Your task to perform on an android device: delete browsing data in the chrome app Image 0: 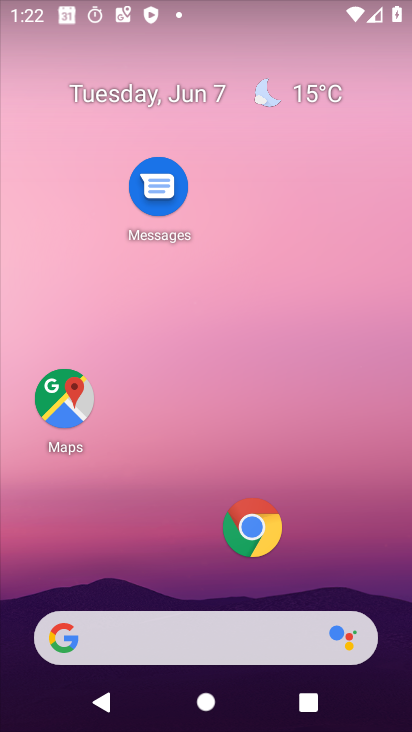
Step 0: click (259, 530)
Your task to perform on an android device: delete browsing data in the chrome app Image 1: 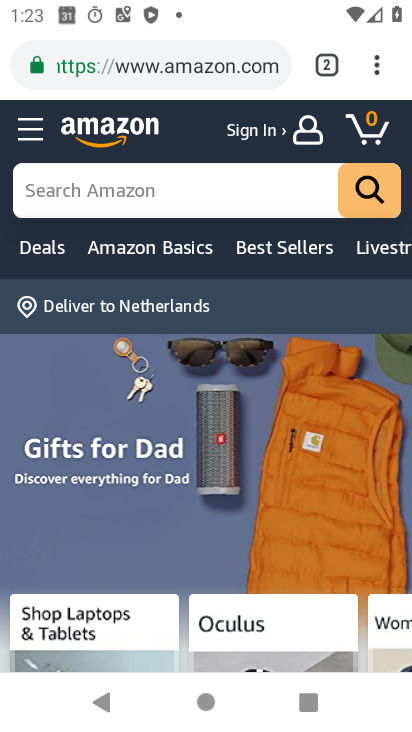
Step 1: click (370, 66)
Your task to perform on an android device: delete browsing data in the chrome app Image 2: 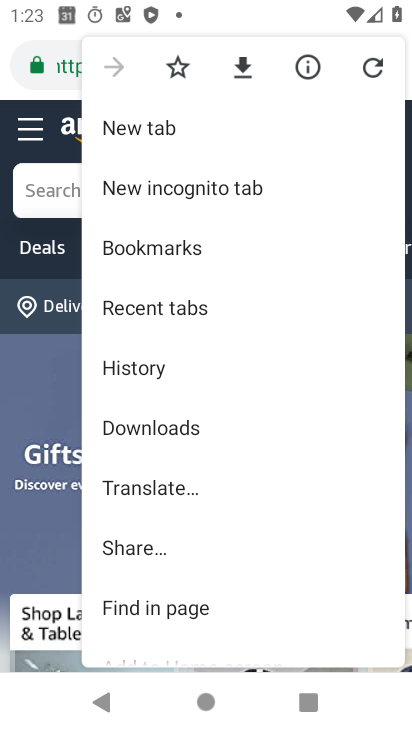
Step 2: drag from (182, 618) to (220, 205)
Your task to perform on an android device: delete browsing data in the chrome app Image 3: 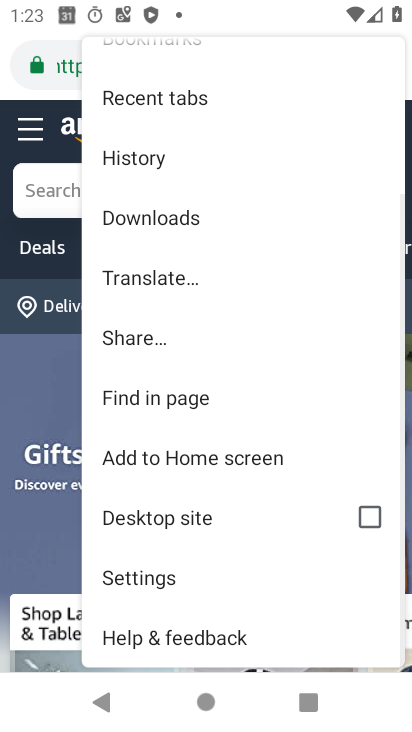
Step 3: click (129, 589)
Your task to perform on an android device: delete browsing data in the chrome app Image 4: 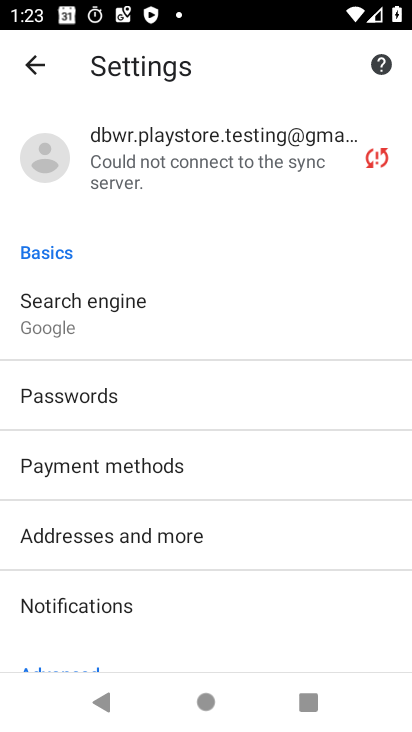
Step 4: drag from (77, 650) to (126, 312)
Your task to perform on an android device: delete browsing data in the chrome app Image 5: 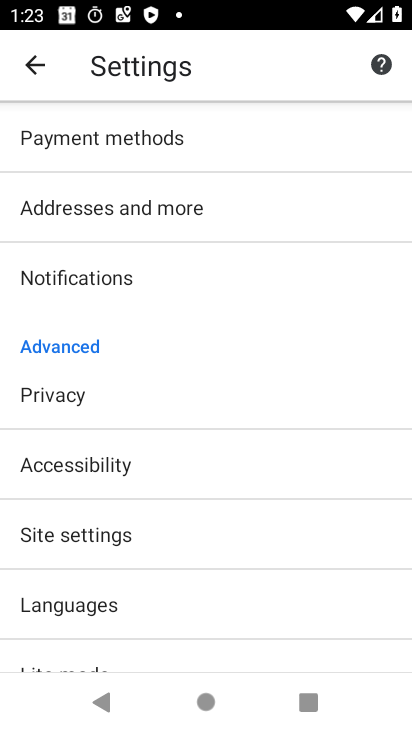
Step 5: click (75, 399)
Your task to perform on an android device: delete browsing data in the chrome app Image 6: 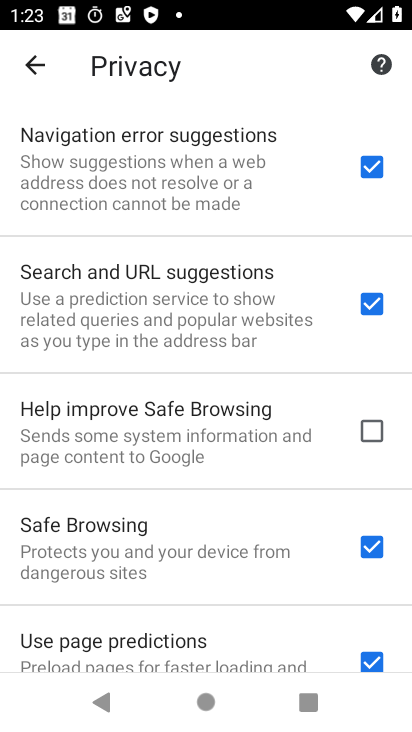
Step 6: drag from (88, 650) to (131, 240)
Your task to perform on an android device: delete browsing data in the chrome app Image 7: 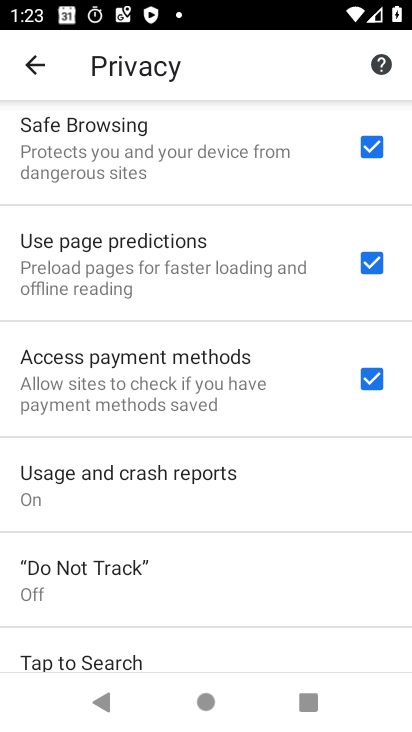
Step 7: drag from (129, 606) to (158, 261)
Your task to perform on an android device: delete browsing data in the chrome app Image 8: 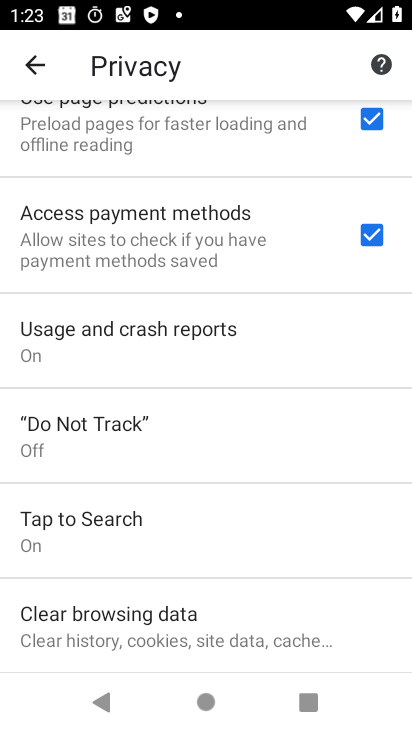
Step 8: click (158, 632)
Your task to perform on an android device: delete browsing data in the chrome app Image 9: 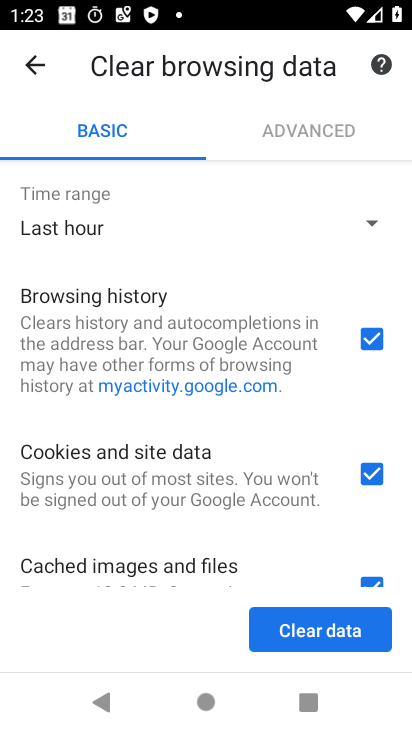
Step 9: click (322, 629)
Your task to perform on an android device: delete browsing data in the chrome app Image 10: 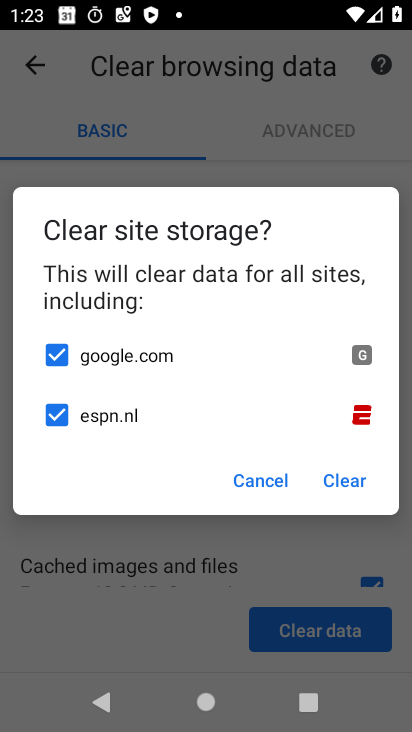
Step 10: click (349, 480)
Your task to perform on an android device: delete browsing data in the chrome app Image 11: 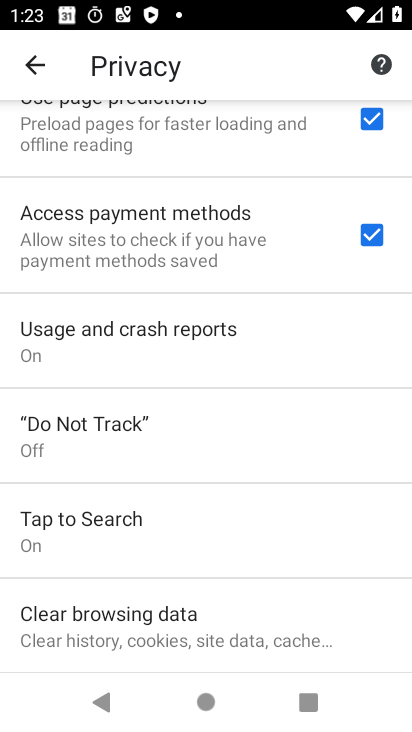
Step 11: task complete